Your task to perform on an android device: open the mobile data screen to see how much data has been used Image 0: 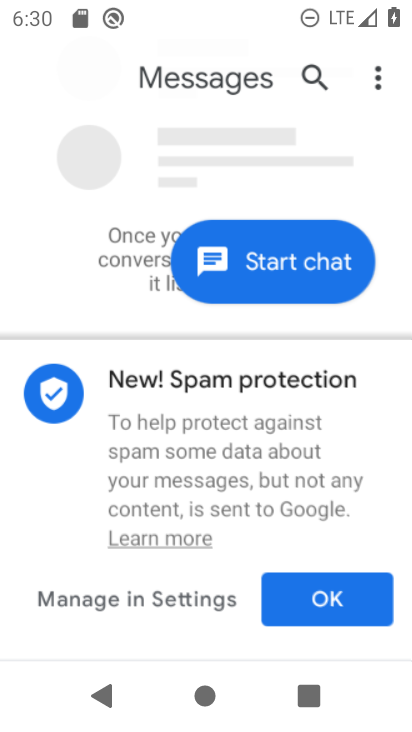
Step 0: drag from (169, 587) to (190, 313)
Your task to perform on an android device: open the mobile data screen to see how much data has been used Image 1: 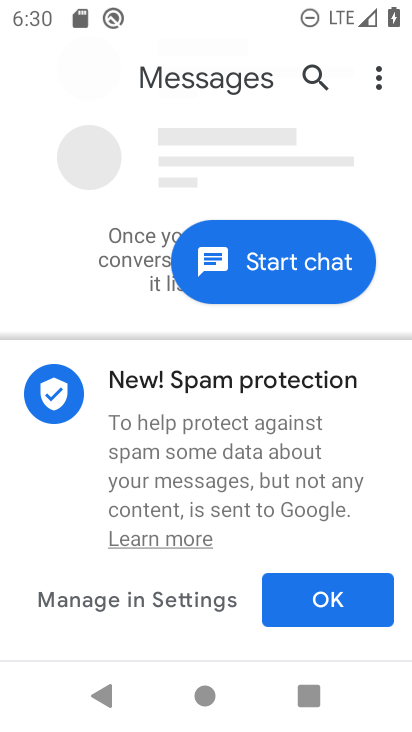
Step 1: press home button
Your task to perform on an android device: open the mobile data screen to see how much data has been used Image 2: 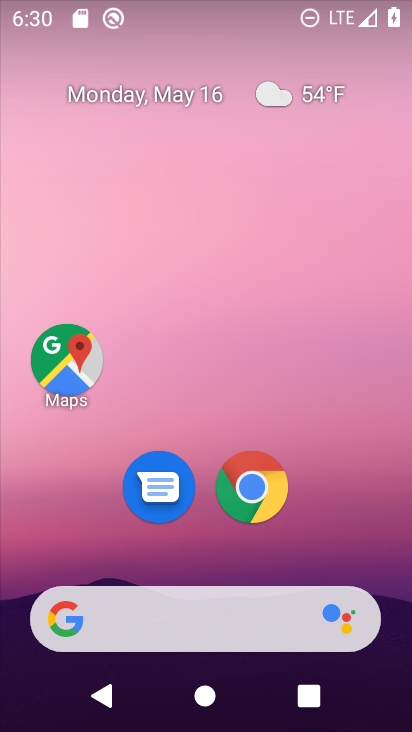
Step 2: drag from (202, 583) to (201, 210)
Your task to perform on an android device: open the mobile data screen to see how much data has been used Image 3: 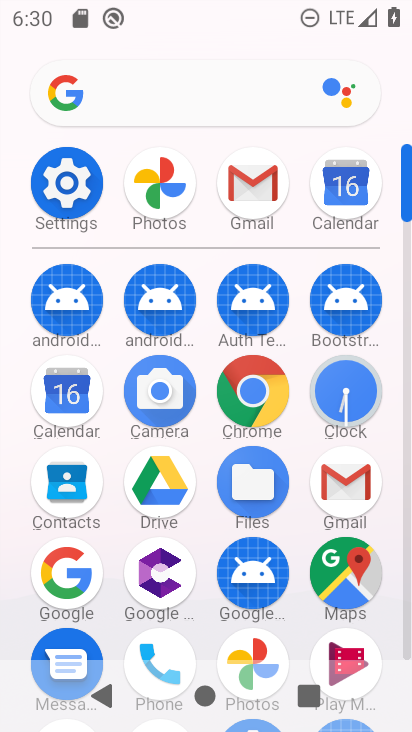
Step 3: click (79, 169)
Your task to perform on an android device: open the mobile data screen to see how much data has been used Image 4: 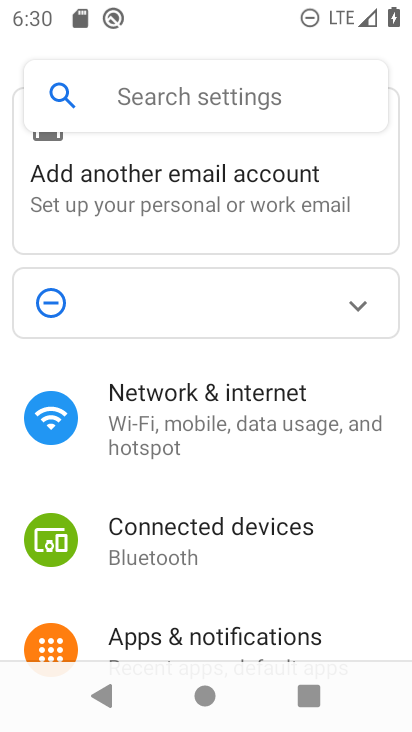
Step 4: click (189, 422)
Your task to perform on an android device: open the mobile data screen to see how much data has been used Image 5: 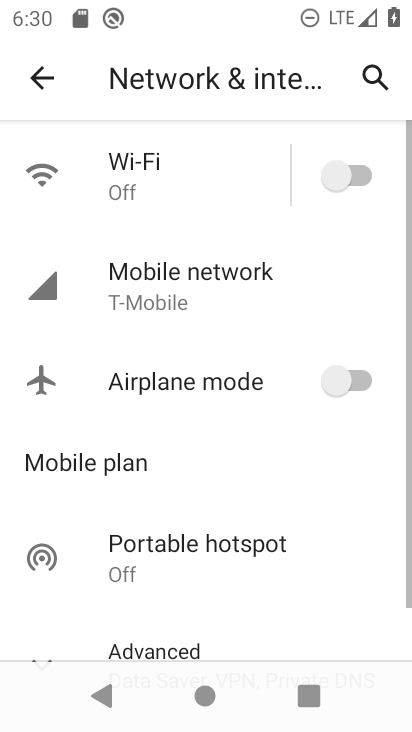
Step 5: click (171, 290)
Your task to perform on an android device: open the mobile data screen to see how much data has been used Image 6: 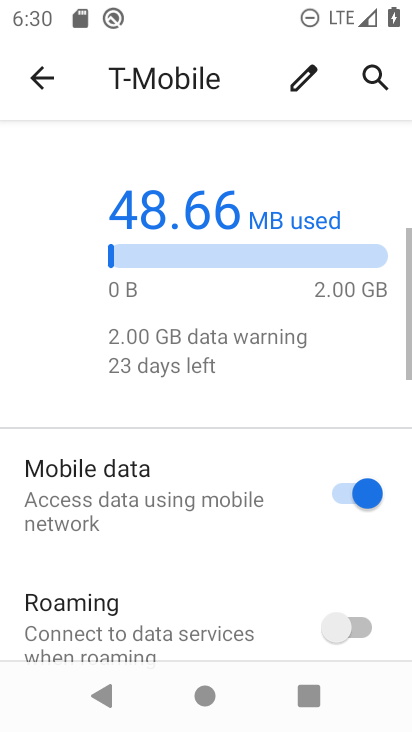
Step 6: task complete